Your task to perform on an android device: Open the map Image 0: 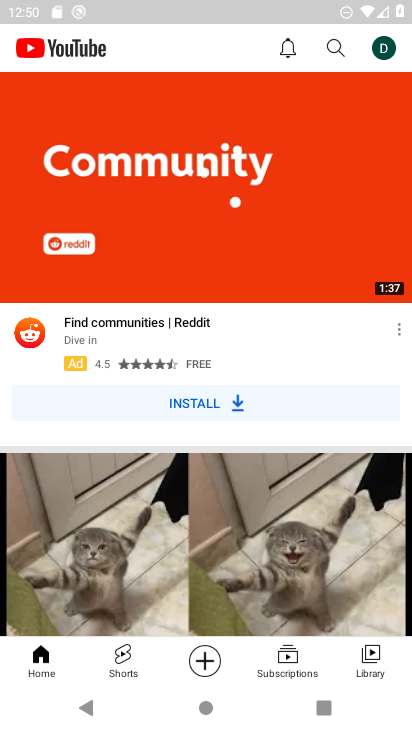
Step 0: press home button
Your task to perform on an android device: Open the map Image 1: 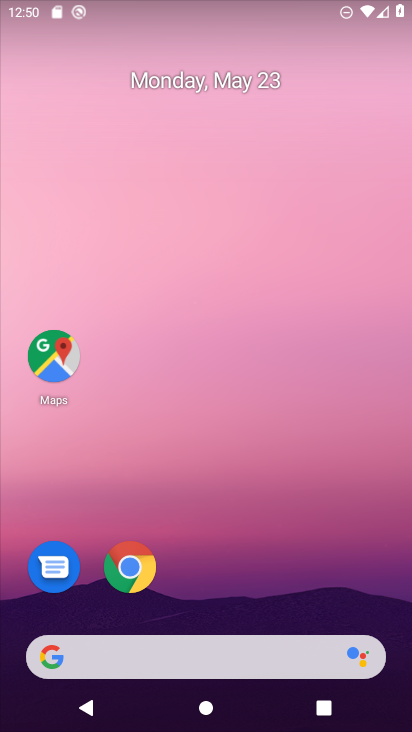
Step 1: click (32, 365)
Your task to perform on an android device: Open the map Image 2: 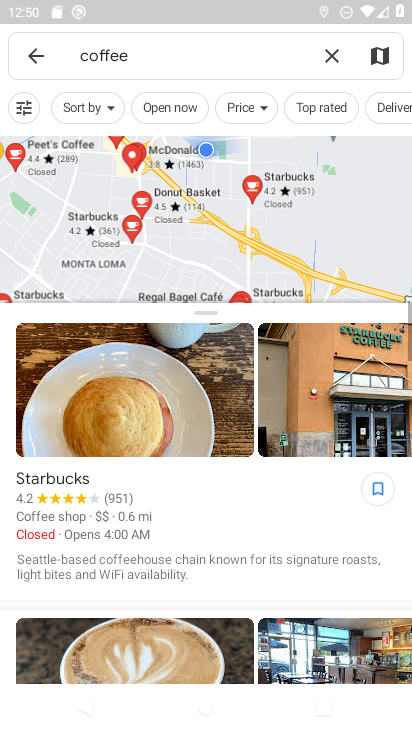
Step 2: task complete